Your task to perform on an android device: see creations saved in the google photos Image 0: 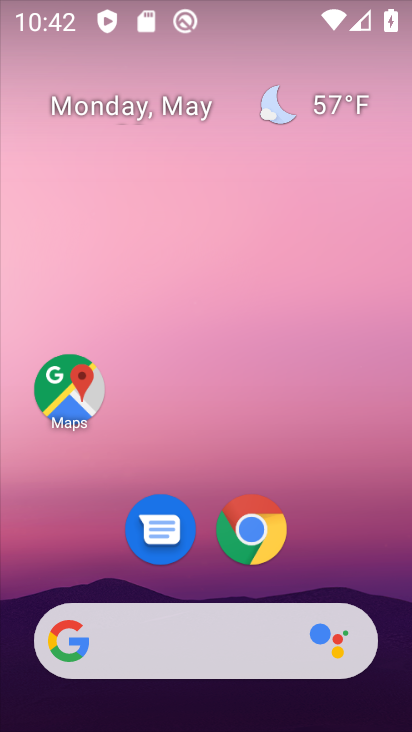
Step 0: drag from (240, 729) to (240, 615)
Your task to perform on an android device: see creations saved in the google photos Image 1: 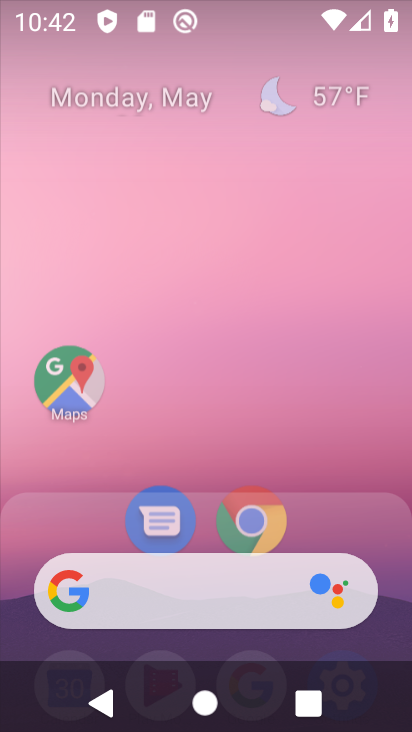
Step 1: click (237, 104)
Your task to perform on an android device: see creations saved in the google photos Image 2: 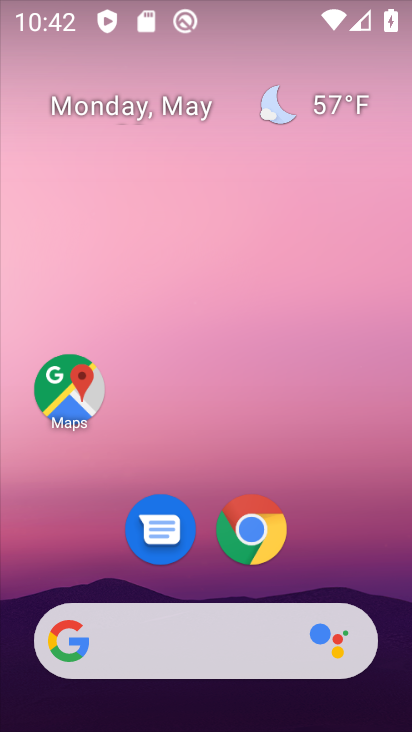
Step 2: drag from (250, 697) to (250, 70)
Your task to perform on an android device: see creations saved in the google photos Image 3: 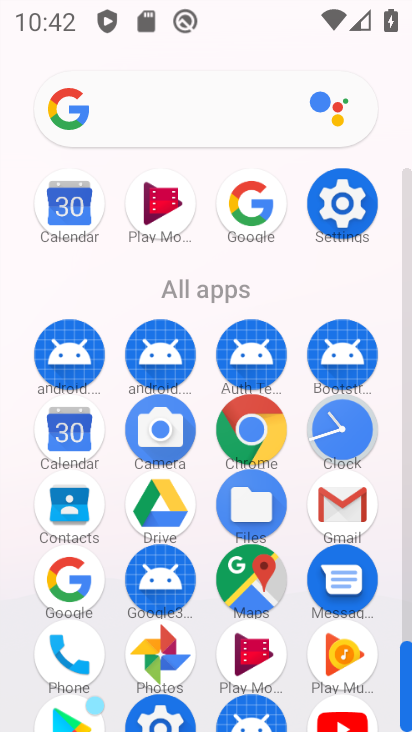
Step 3: click (161, 651)
Your task to perform on an android device: see creations saved in the google photos Image 4: 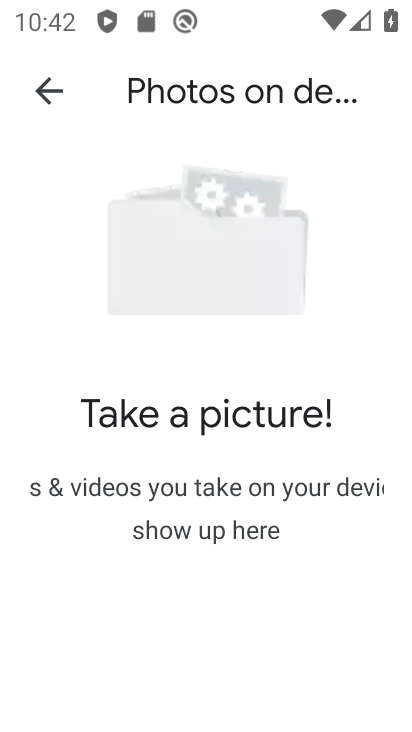
Step 4: click (46, 89)
Your task to perform on an android device: see creations saved in the google photos Image 5: 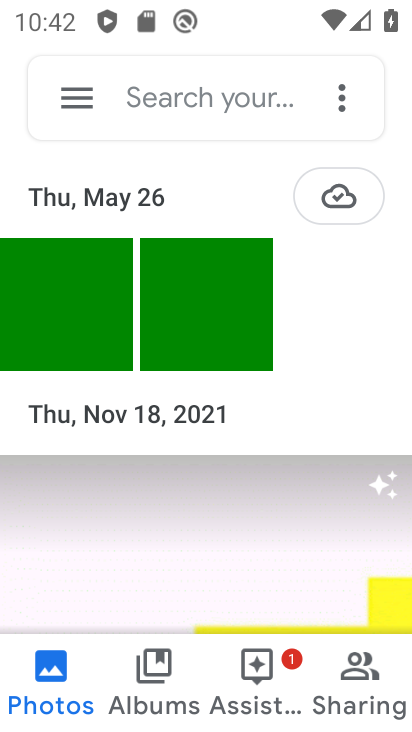
Step 5: click (201, 103)
Your task to perform on an android device: see creations saved in the google photos Image 6: 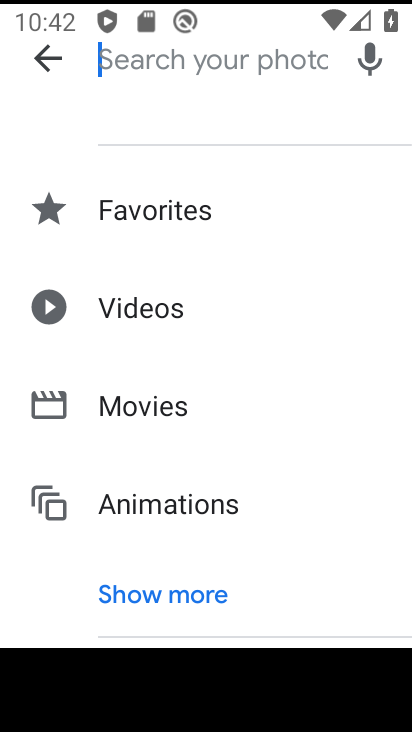
Step 6: click (167, 595)
Your task to perform on an android device: see creations saved in the google photos Image 7: 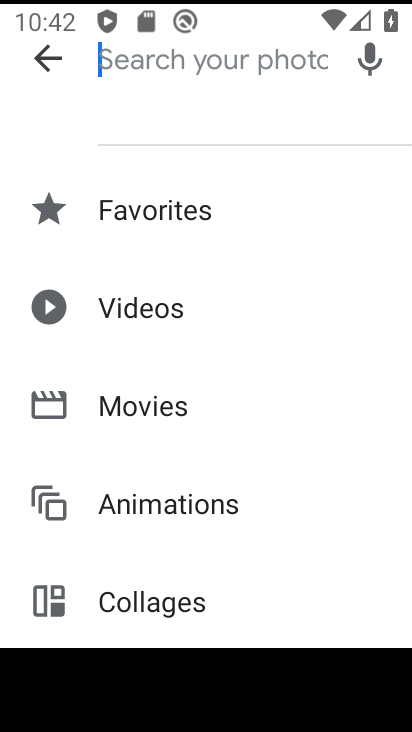
Step 7: drag from (183, 603) to (183, 202)
Your task to perform on an android device: see creations saved in the google photos Image 8: 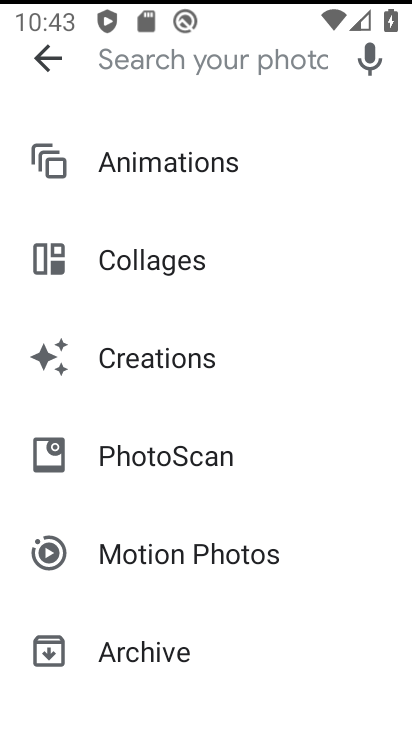
Step 8: click (170, 357)
Your task to perform on an android device: see creations saved in the google photos Image 9: 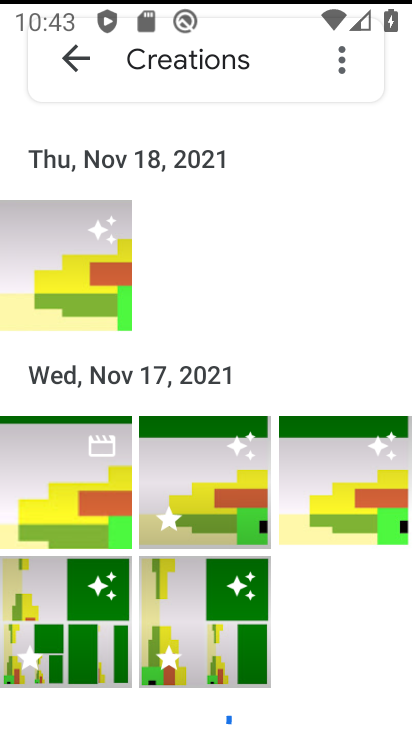
Step 9: task complete